Your task to perform on an android device: Clear all items from cart on ebay.com. Add apple airpods to the cart on ebay.com, then select checkout. Image 0: 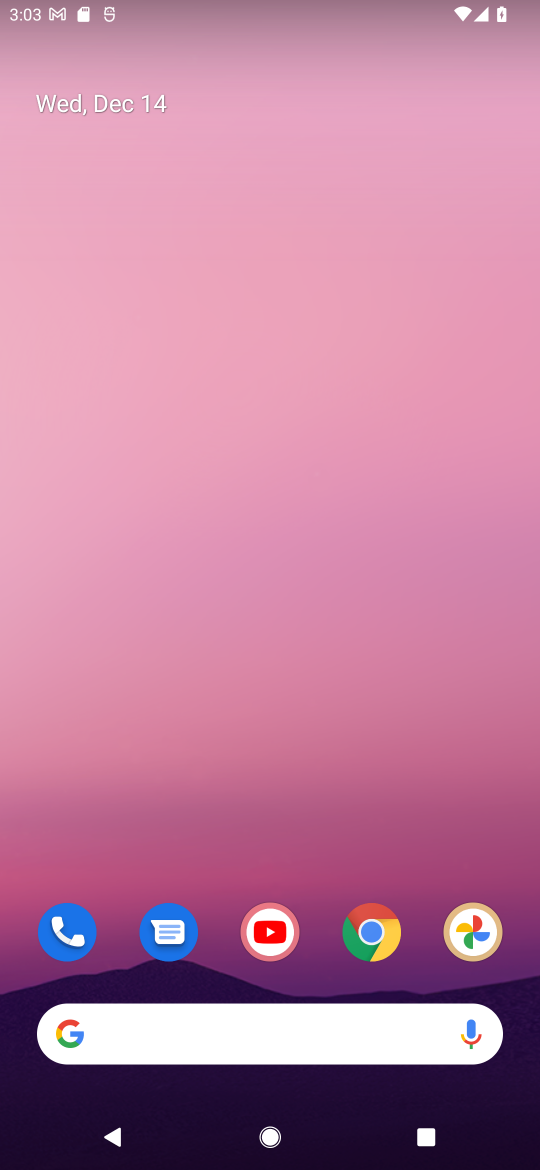
Step 0: press home button
Your task to perform on an android device: Clear all items from cart on ebay.com. Add apple airpods to the cart on ebay.com, then select checkout. Image 1: 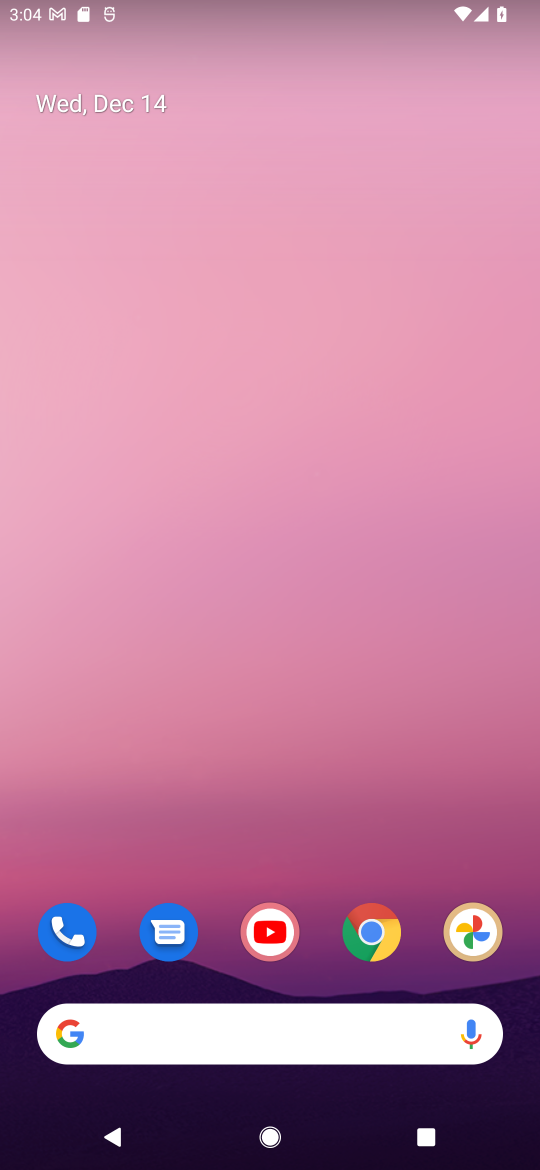
Step 1: click (260, 1034)
Your task to perform on an android device: Clear all items from cart on ebay.com. Add apple airpods to the cart on ebay.com, then select checkout. Image 2: 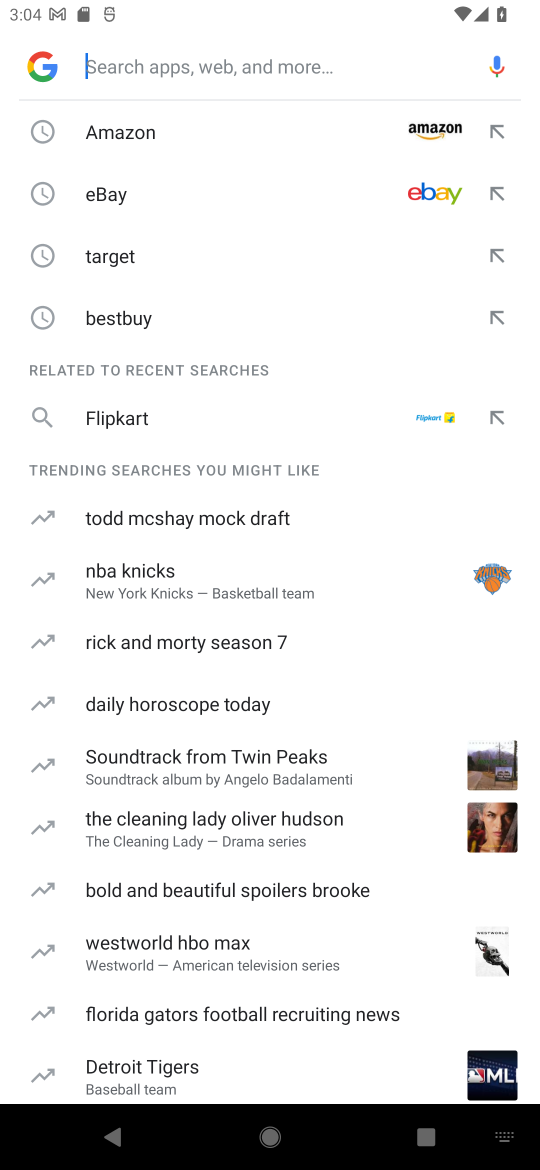
Step 2: click (166, 209)
Your task to perform on an android device: Clear all items from cart on ebay.com. Add apple airpods to the cart on ebay.com, then select checkout. Image 3: 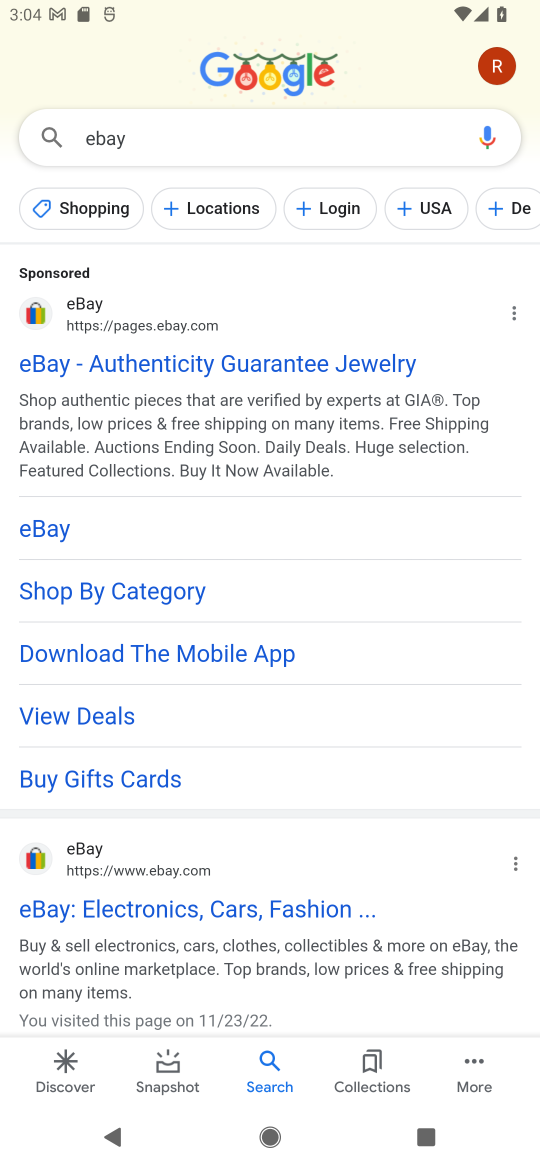
Step 3: click (173, 343)
Your task to perform on an android device: Clear all items from cart on ebay.com. Add apple airpods to the cart on ebay.com, then select checkout. Image 4: 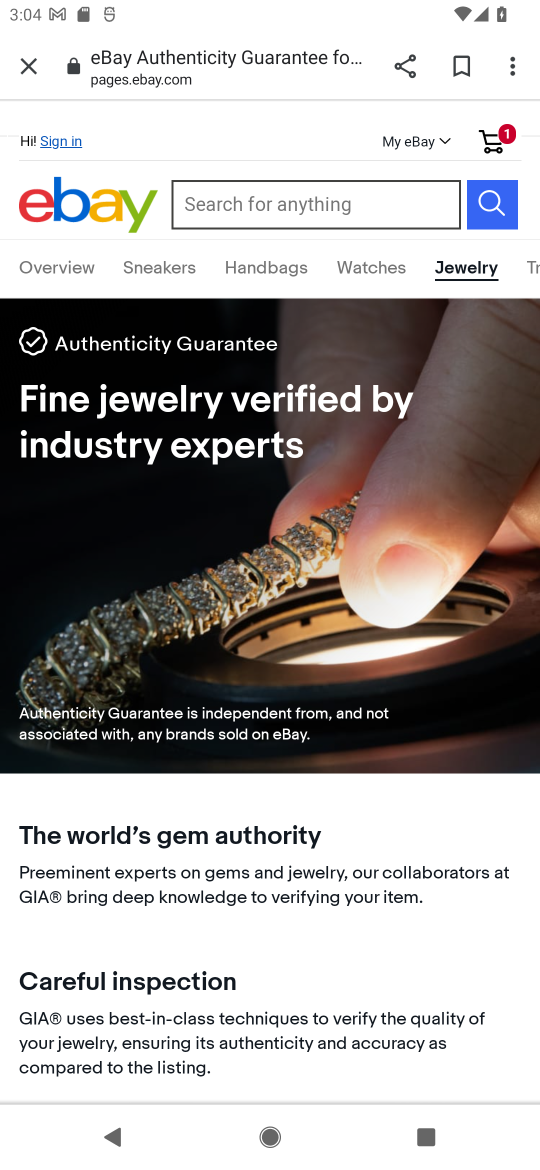
Step 4: click (494, 140)
Your task to perform on an android device: Clear all items from cart on ebay.com. Add apple airpods to the cart on ebay.com, then select checkout. Image 5: 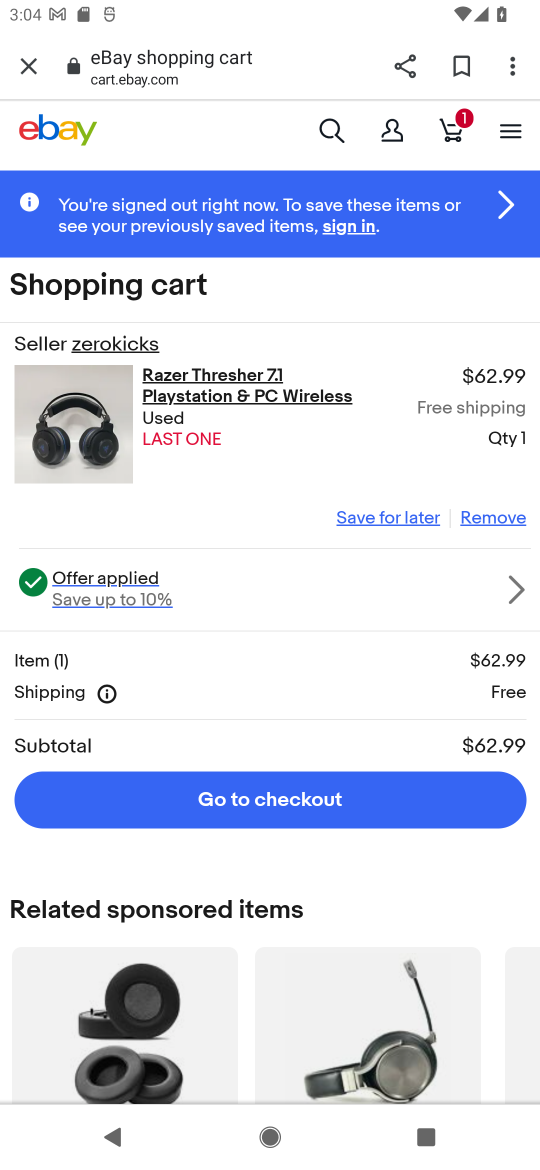
Step 5: click (502, 517)
Your task to perform on an android device: Clear all items from cart on ebay.com. Add apple airpods to the cart on ebay.com, then select checkout. Image 6: 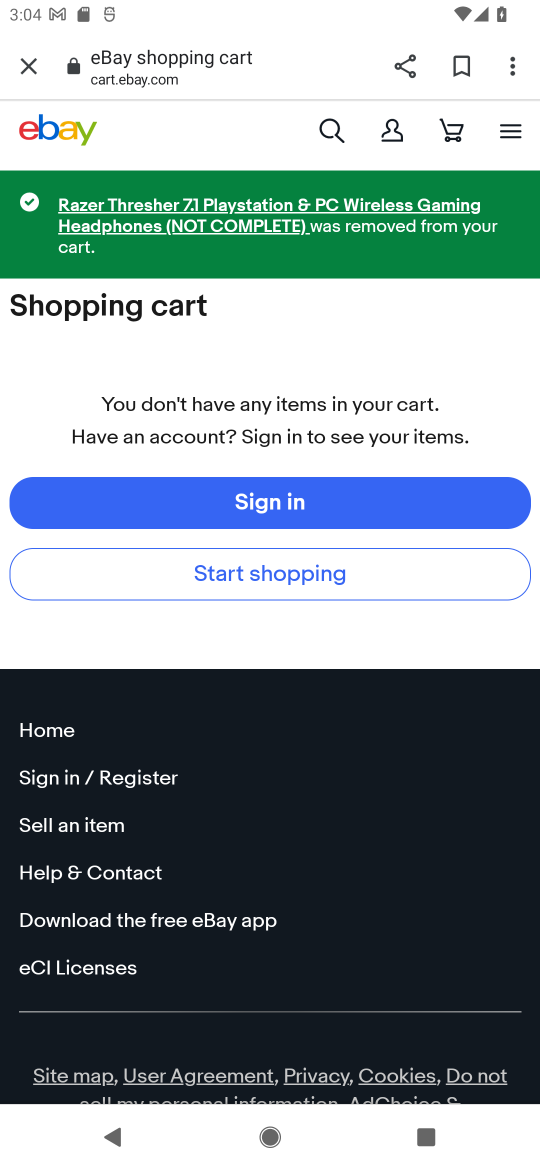
Step 6: click (320, 128)
Your task to perform on an android device: Clear all items from cart on ebay.com. Add apple airpods to the cart on ebay.com, then select checkout. Image 7: 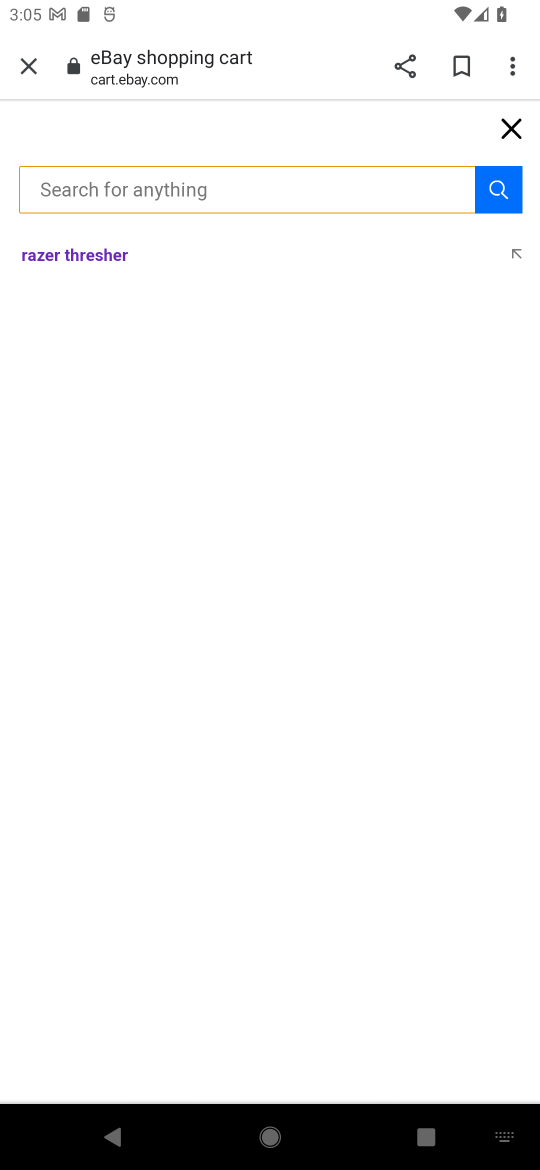
Step 7: type "apple airpods"
Your task to perform on an android device: Clear all items from cart on ebay.com. Add apple airpods to the cart on ebay.com, then select checkout. Image 8: 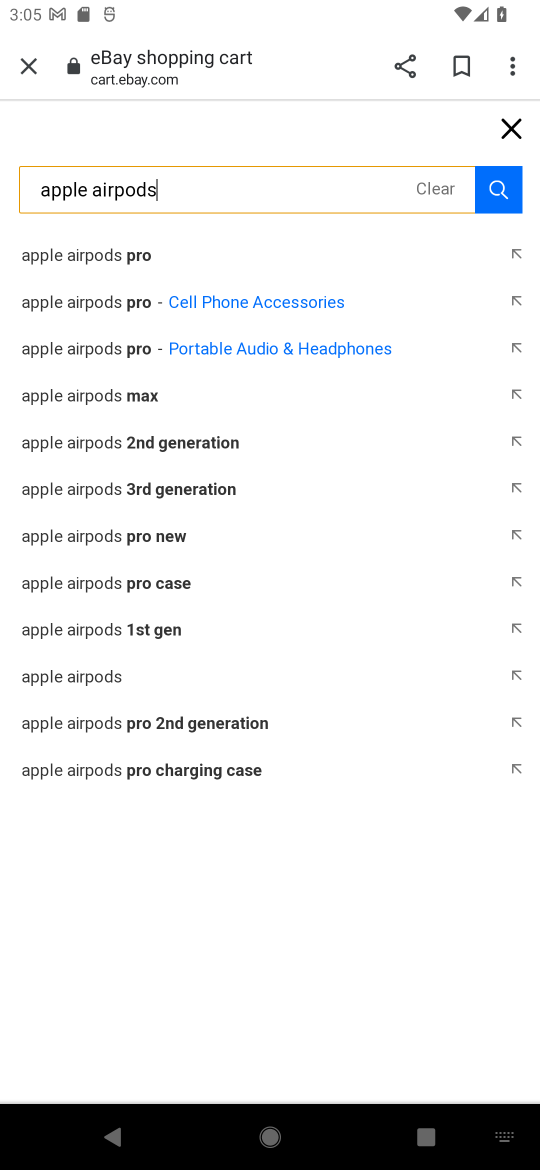
Step 8: click (492, 192)
Your task to perform on an android device: Clear all items from cart on ebay.com. Add apple airpods to the cart on ebay.com, then select checkout. Image 9: 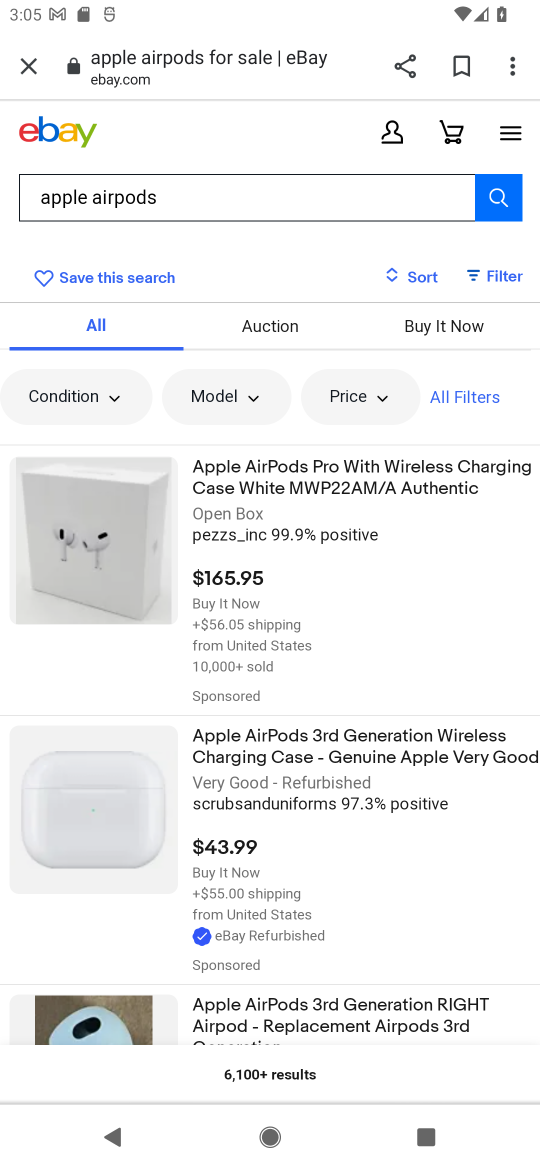
Step 9: click (284, 494)
Your task to perform on an android device: Clear all items from cart on ebay.com. Add apple airpods to the cart on ebay.com, then select checkout. Image 10: 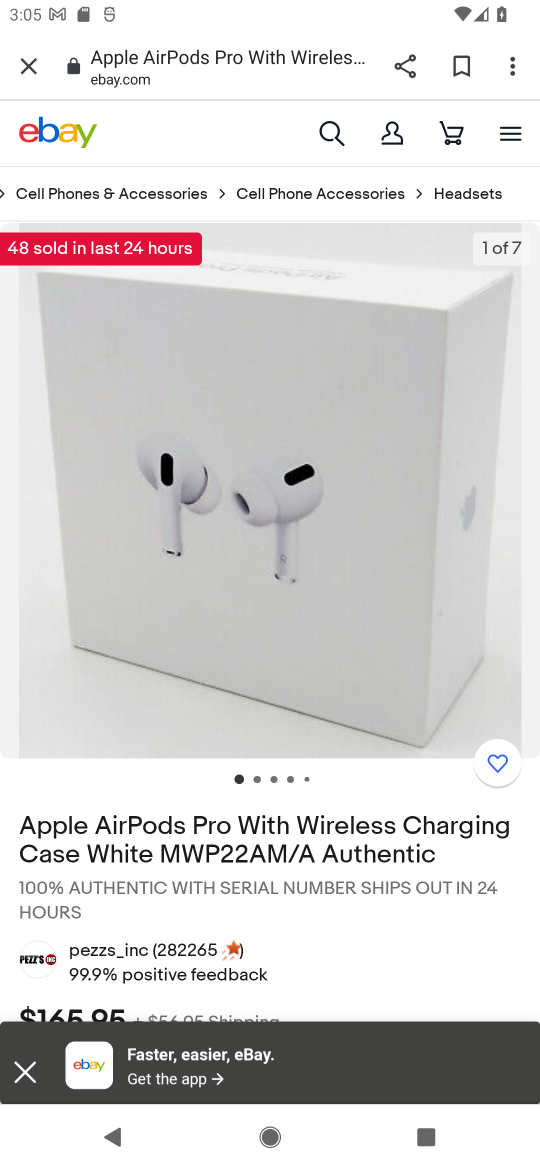
Step 10: drag from (331, 928) to (318, 486)
Your task to perform on an android device: Clear all items from cart on ebay.com. Add apple airpods to the cart on ebay.com, then select checkout. Image 11: 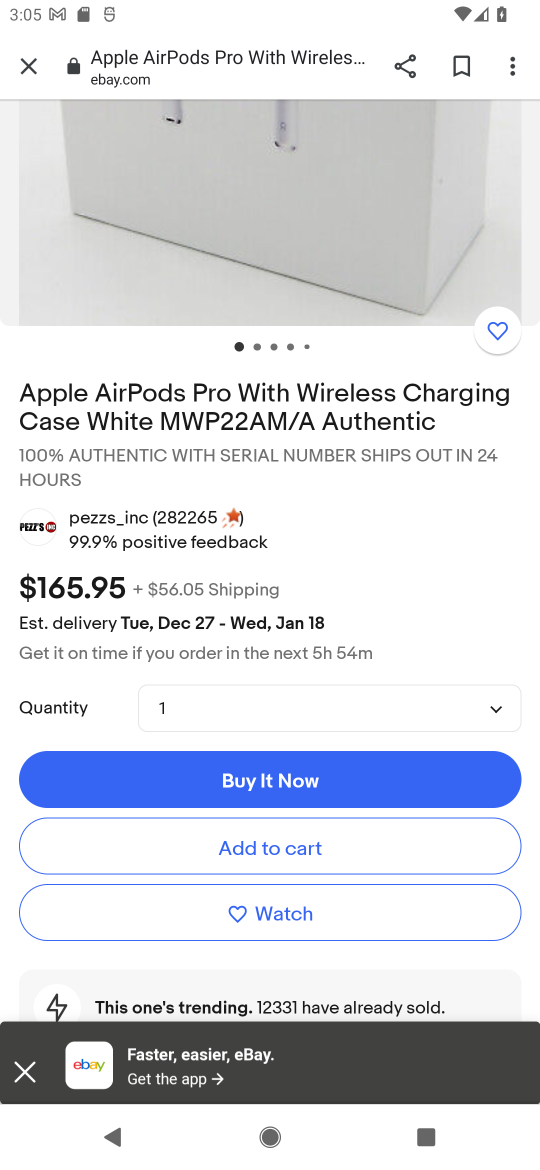
Step 11: click (292, 852)
Your task to perform on an android device: Clear all items from cart on ebay.com. Add apple airpods to the cart on ebay.com, then select checkout. Image 12: 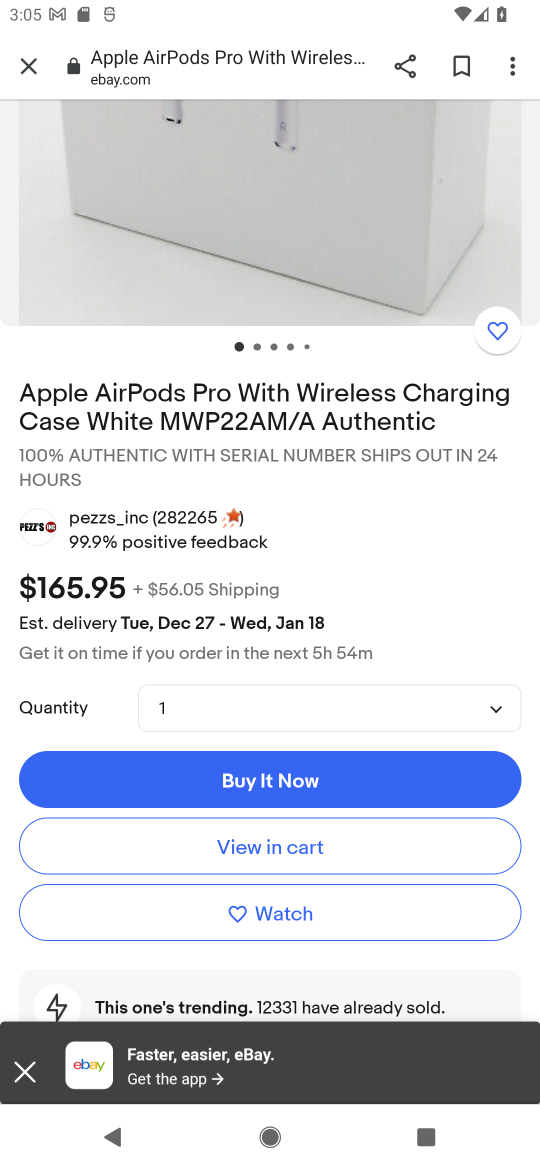
Step 12: click (292, 852)
Your task to perform on an android device: Clear all items from cart on ebay.com. Add apple airpods to the cart on ebay.com, then select checkout. Image 13: 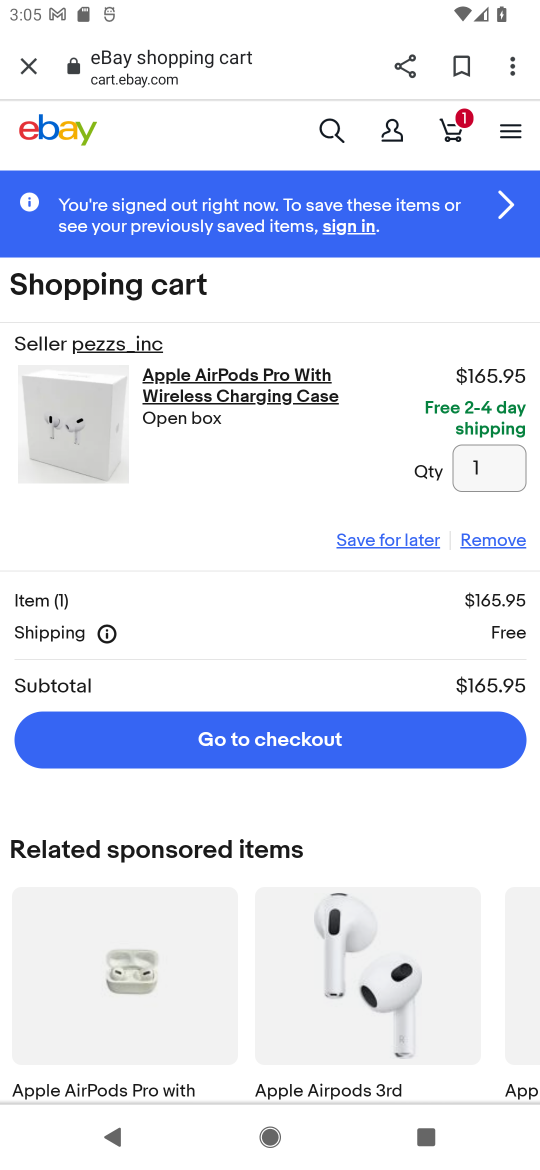
Step 13: click (285, 736)
Your task to perform on an android device: Clear all items from cart on ebay.com. Add apple airpods to the cart on ebay.com, then select checkout. Image 14: 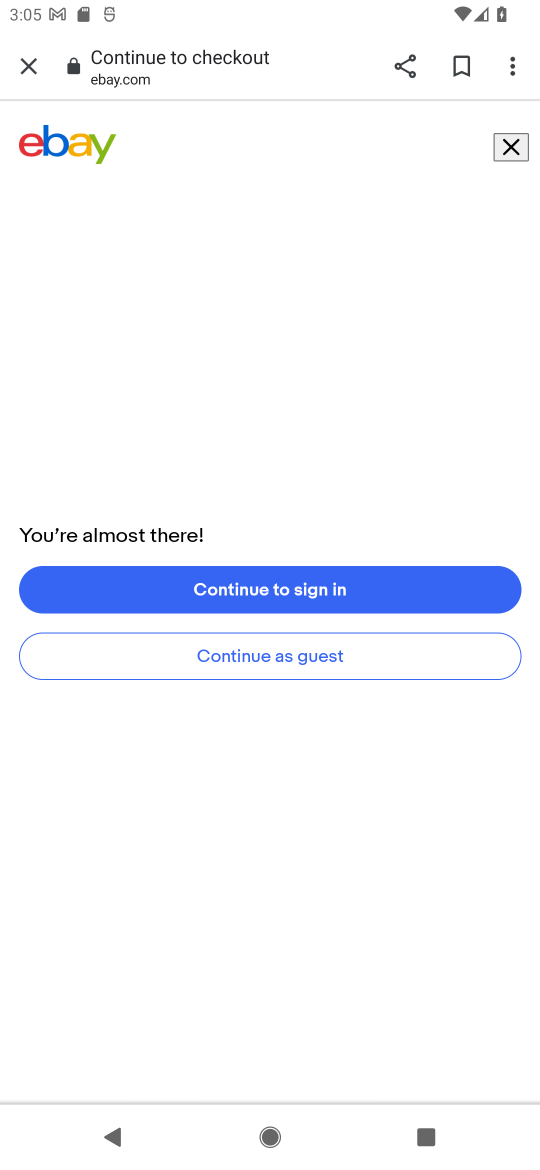
Step 14: task complete